Your task to perform on an android device: Open Youtube and go to "Your channel" Image 0: 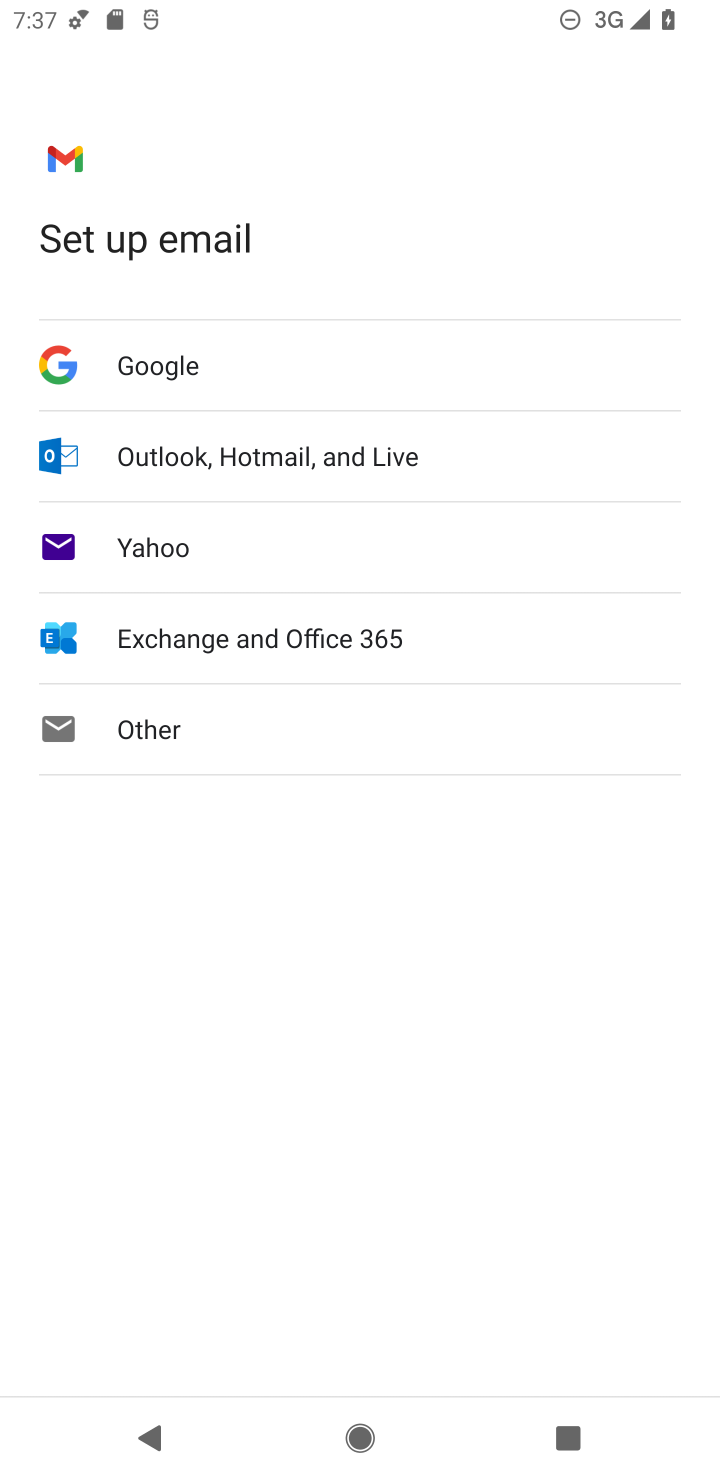
Step 0: press home button
Your task to perform on an android device: Open Youtube and go to "Your channel" Image 1: 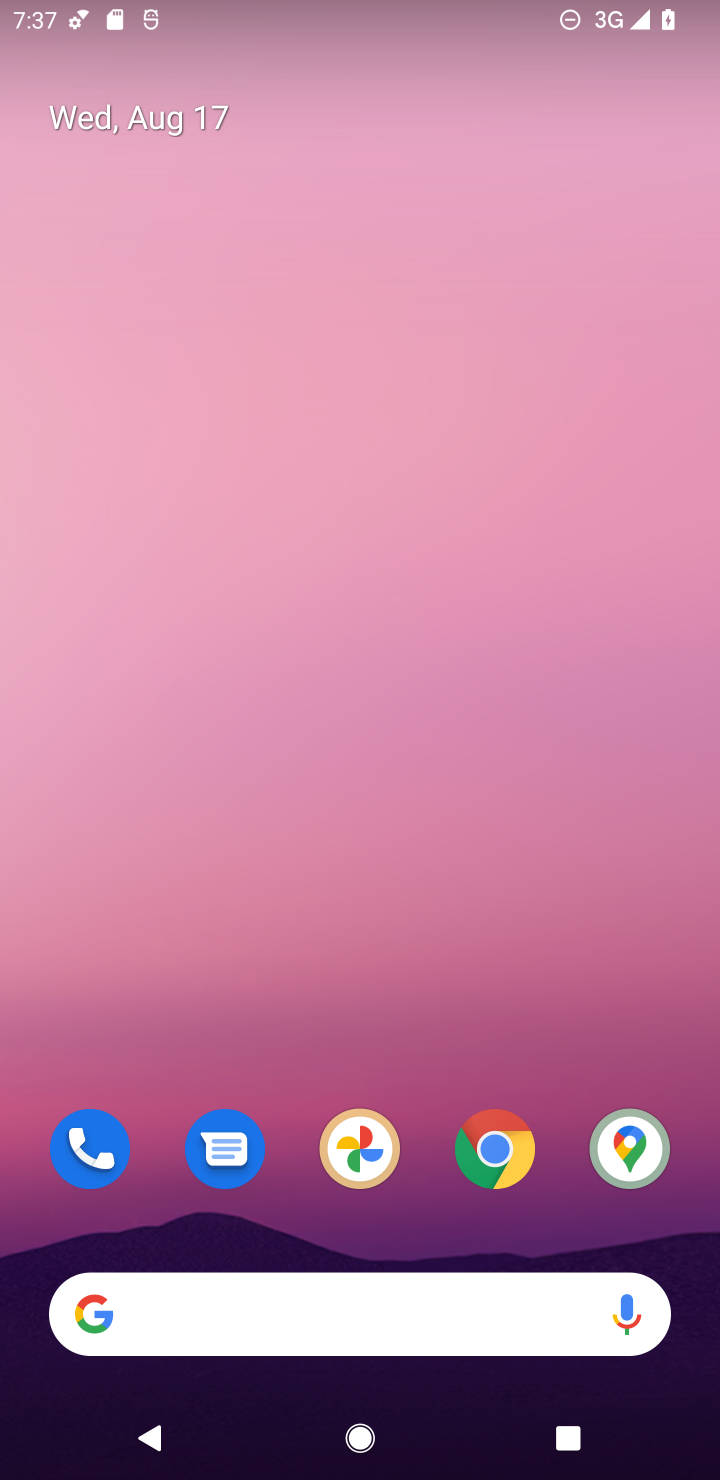
Step 1: drag from (426, 1247) to (403, 382)
Your task to perform on an android device: Open Youtube and go to "Your channel" Image 2: 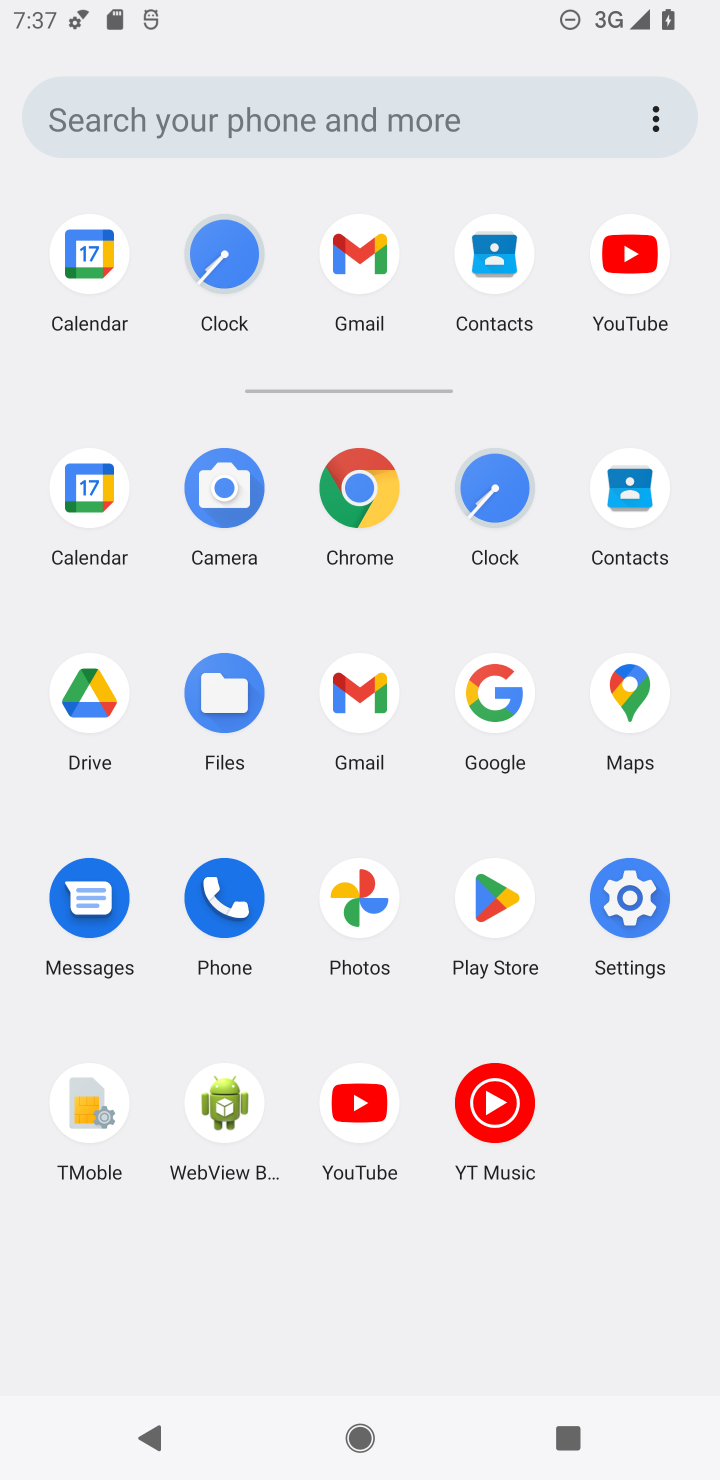
Step 2: click (637, 242)
Your task to perform on an android device: Open Youtube and go to "Your channel" Image 3: 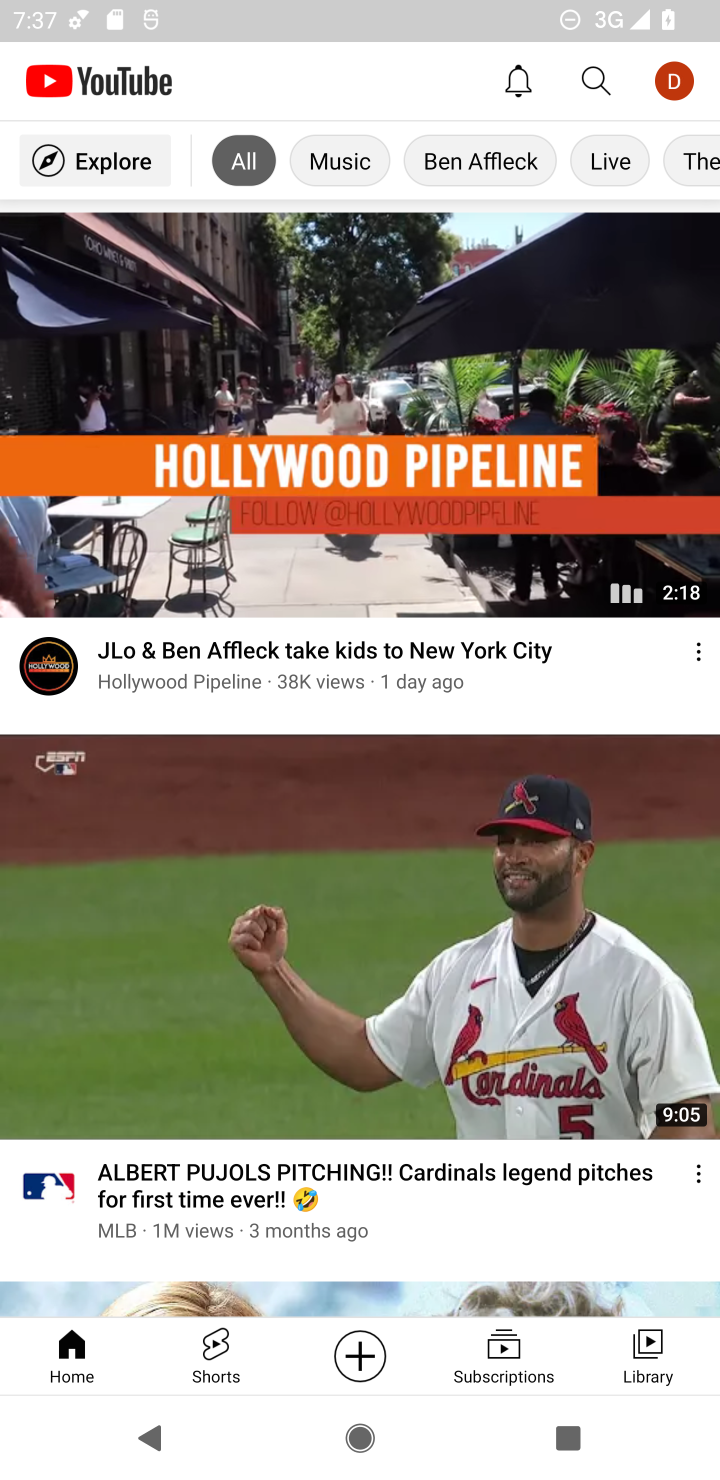
Step 3: click (678, 73)
Your task to perform on an android device: Open Youtube and go to "Your channel" Image 4: 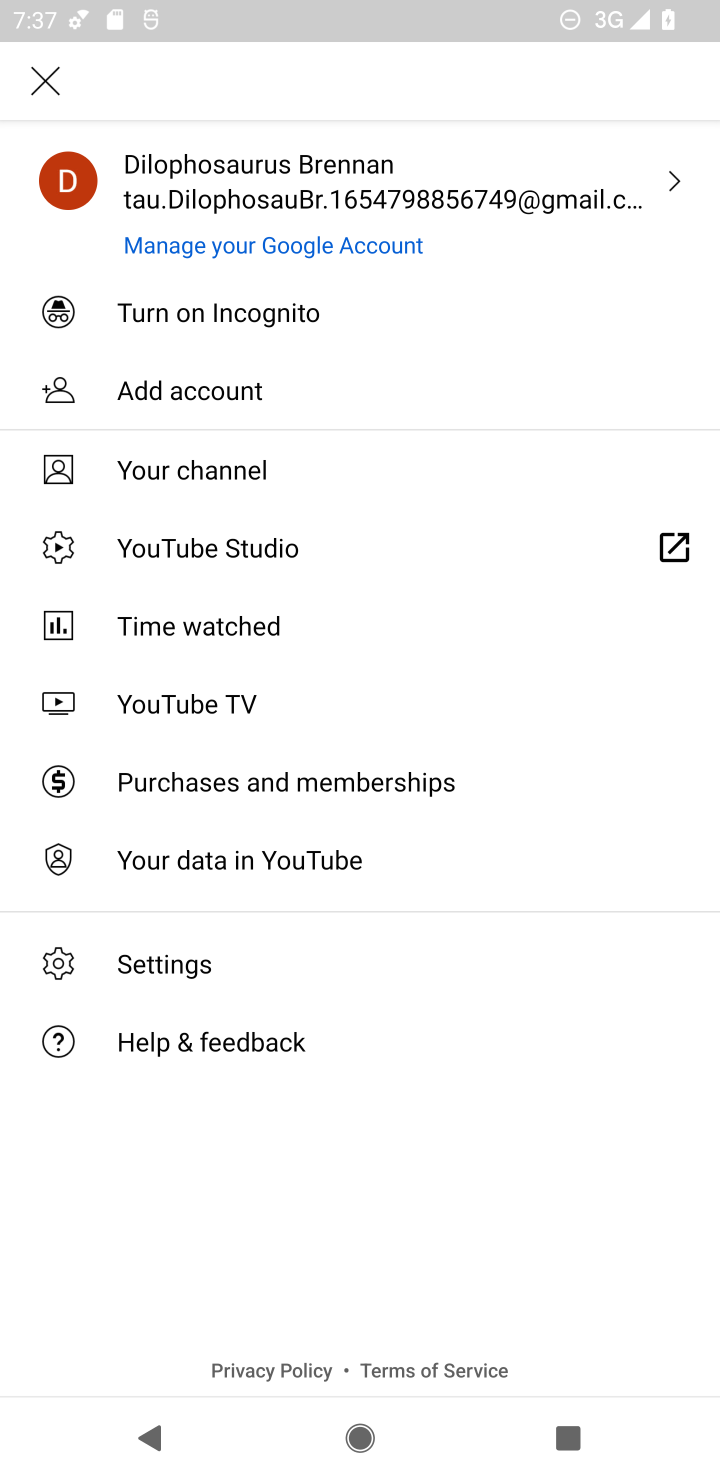
Step 4: click (212, 460)
Your task to perform on an android device: Open Youtube and go to "Your channel" Image 5: 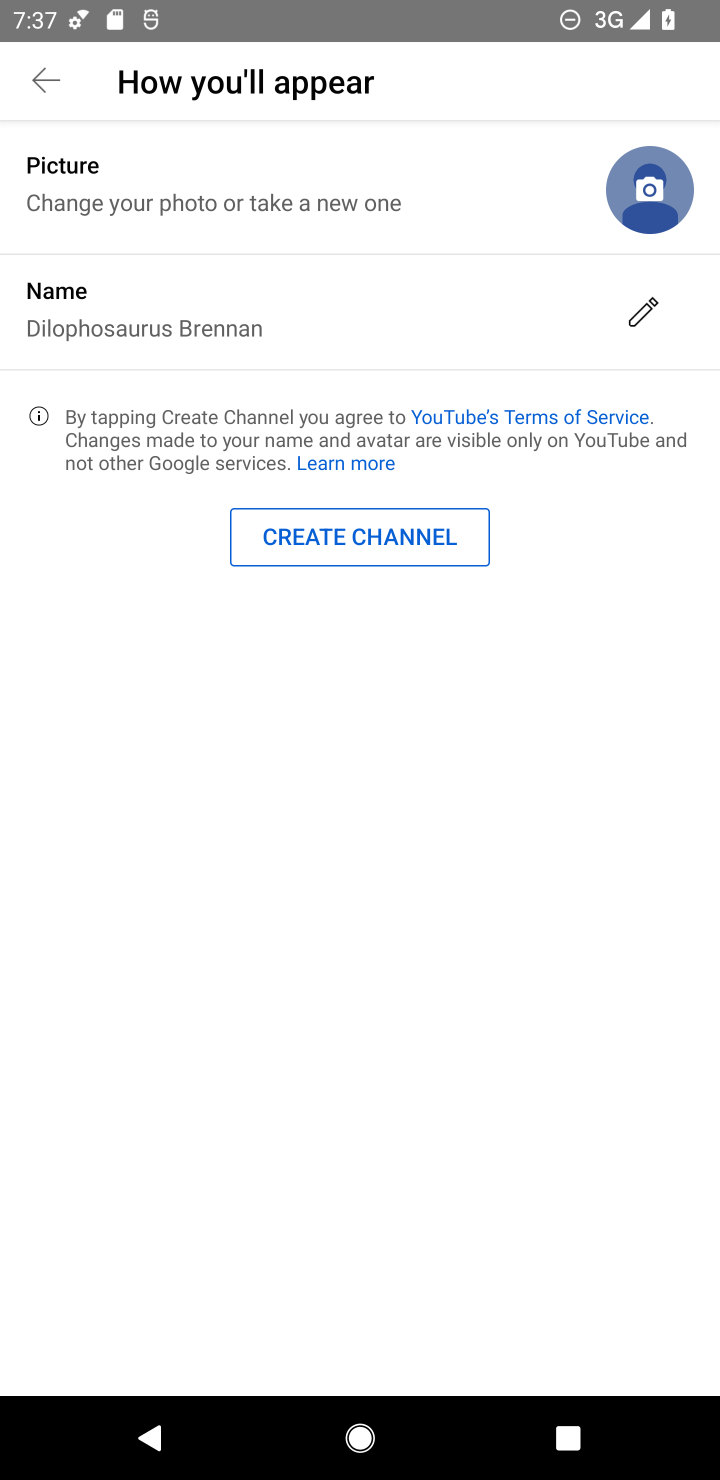
Step 5: task complete